Your task to perform on an android device: open a new tab in the chrome app Image 0: 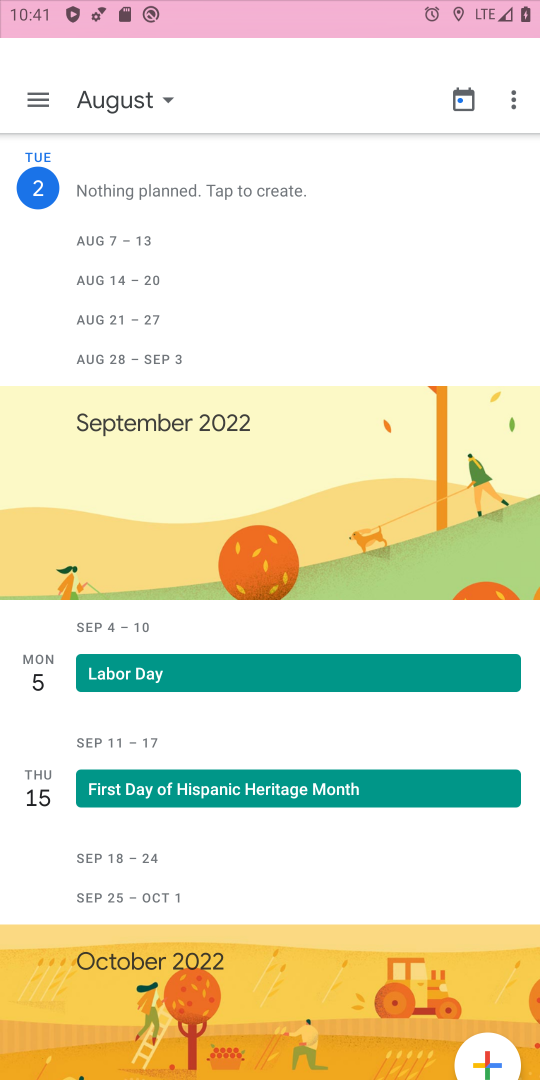
Step 0: press home button
Your task to perform on an android device: open a new tab in the chrome app Image 1: 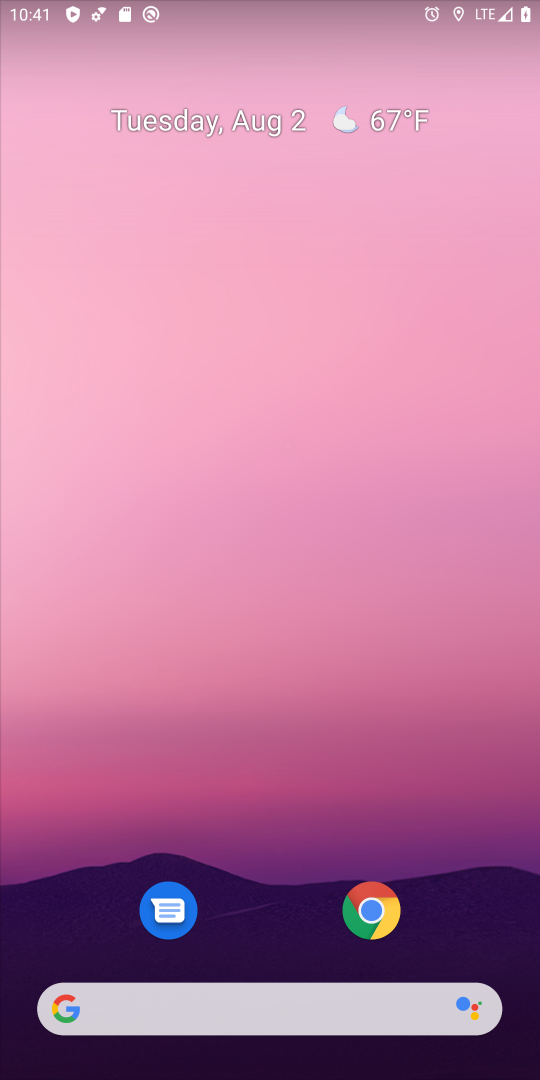
Step 1: click (377, 918)
Your task to perform on an android device: open a new tab in the chrome app Image 2: 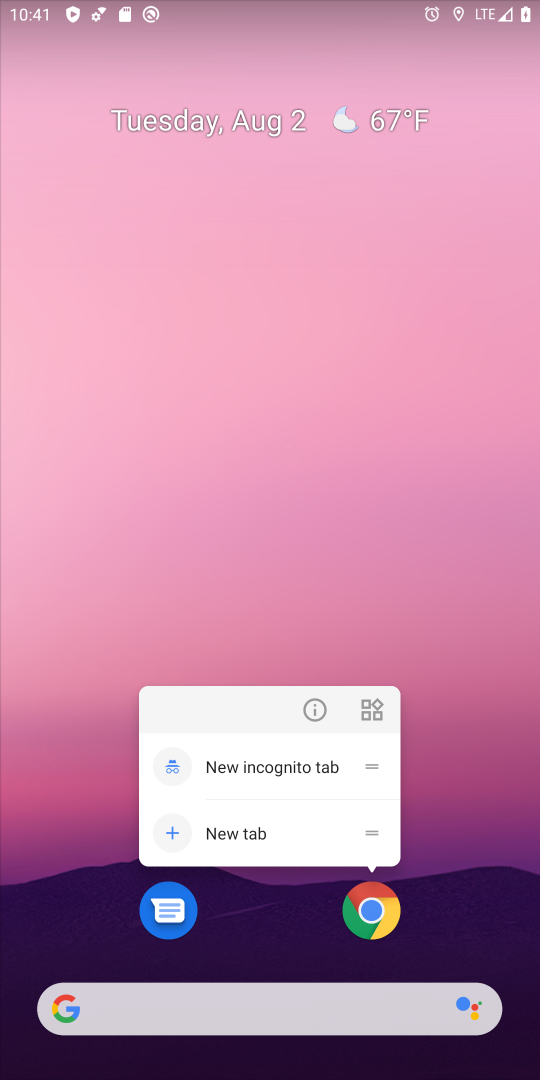
Step 2: click (377, 918)
Your task to perform on an android device: open a new tab in the chrome app Image 3: 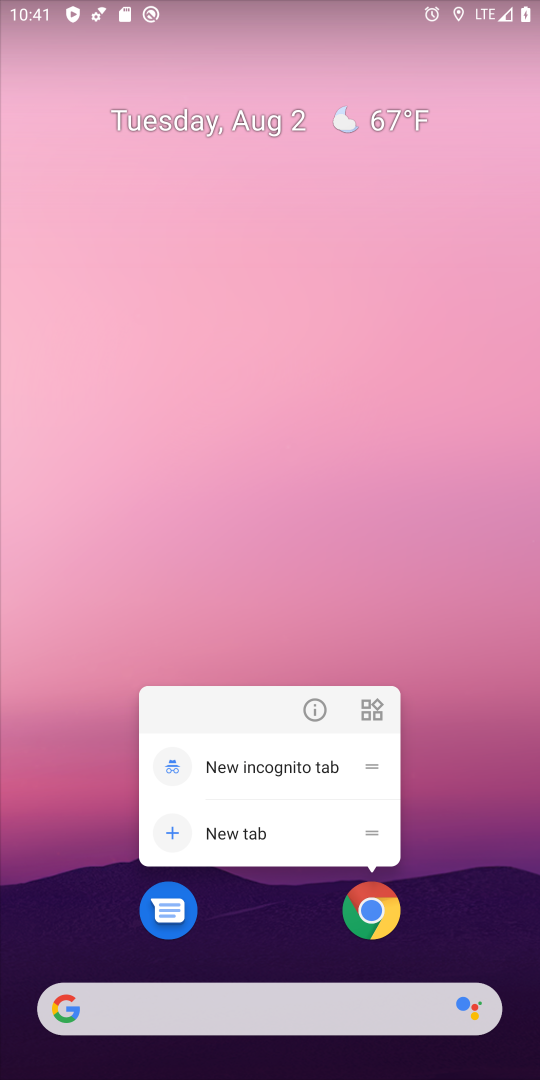
Step 3: click (377, 936)
Your task to perform on an android device: open a new tab in the chrome app Image 4: 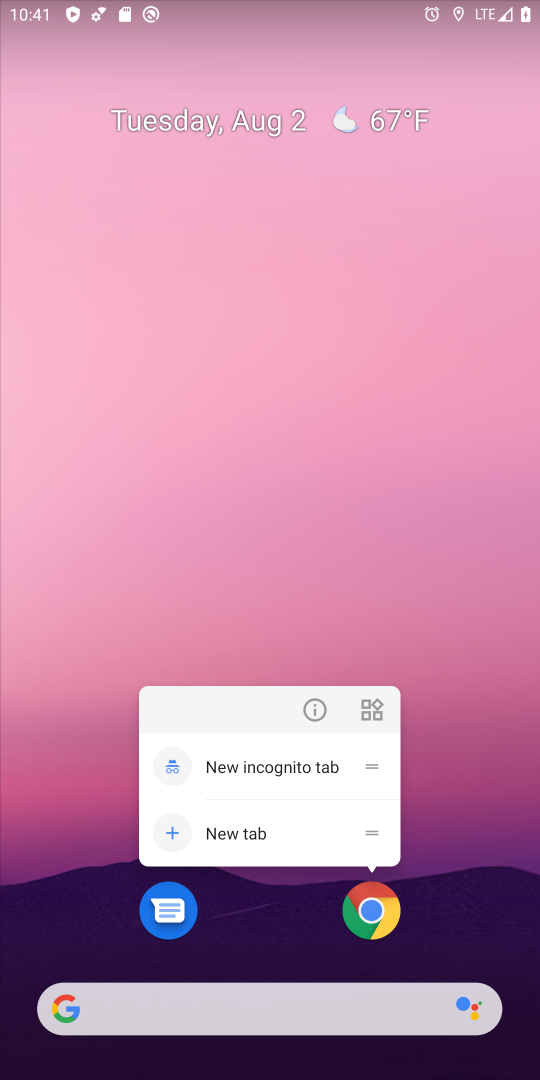
Step 4: click (377, 936)
Your task to perform on an android device: open a new tab in the chrome app Image 5: 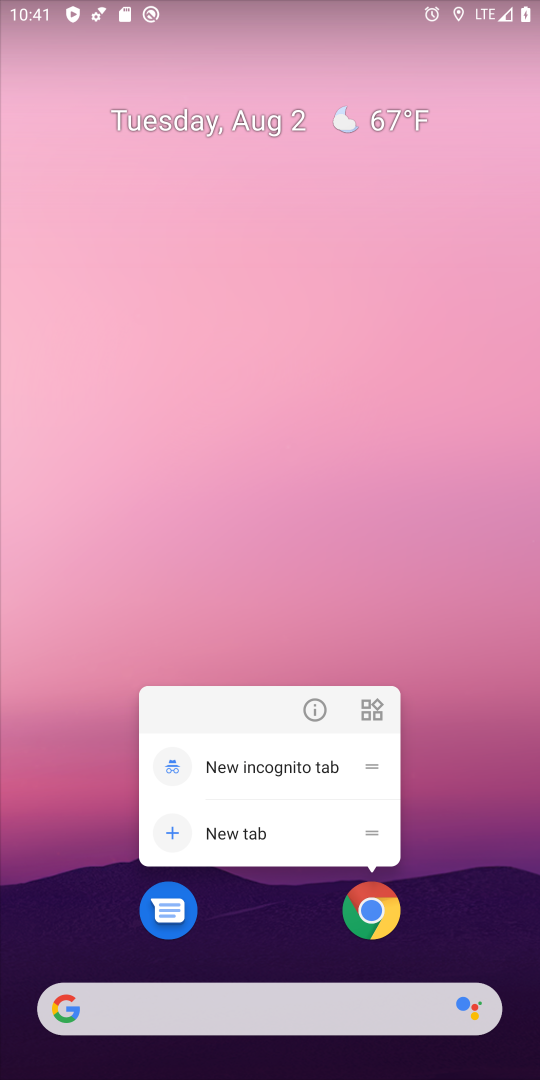
Step 5: click (369, 918)
Your task to perform on an android device: open a new tab in the chrome app Image 6: 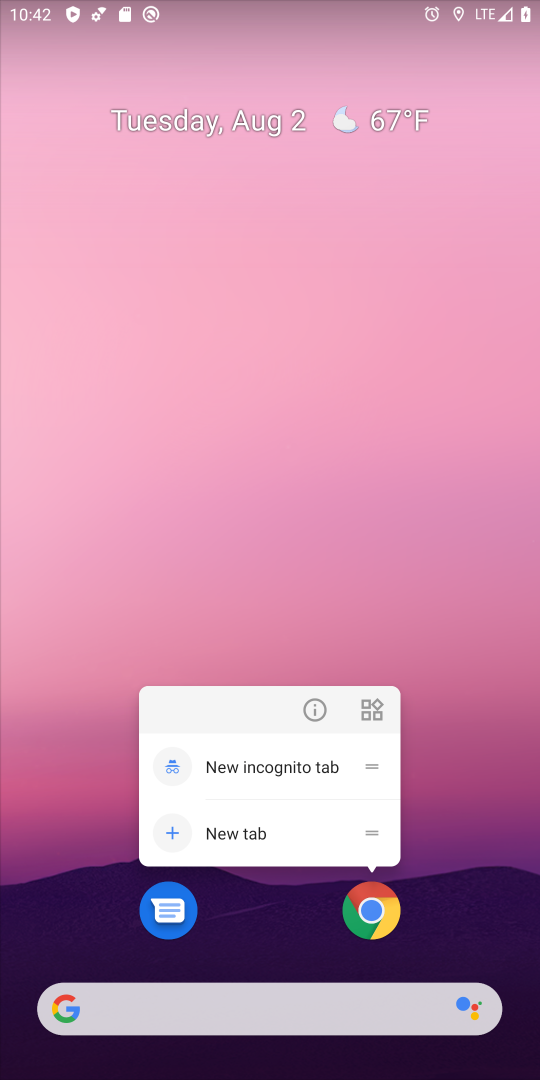
Step 6: drag from (288, 965) to (313, 362)
Your task to perform on an android device: open a new tab in the chrome app Image 7: 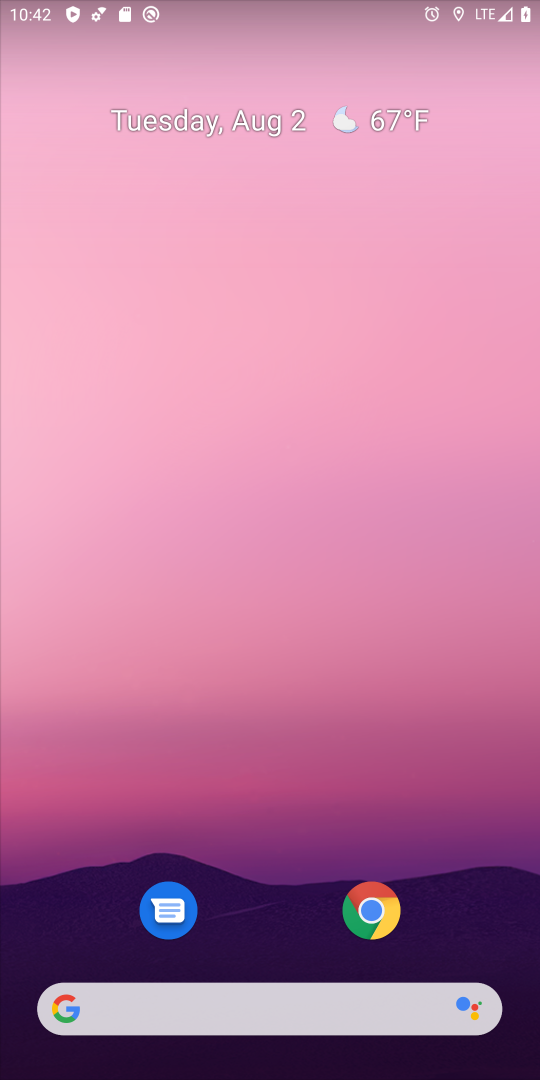
Step 7: drag from (295, 458) to (295, 399)
Your task to perform on an android device: open a new tab in the chrome app Image 8: 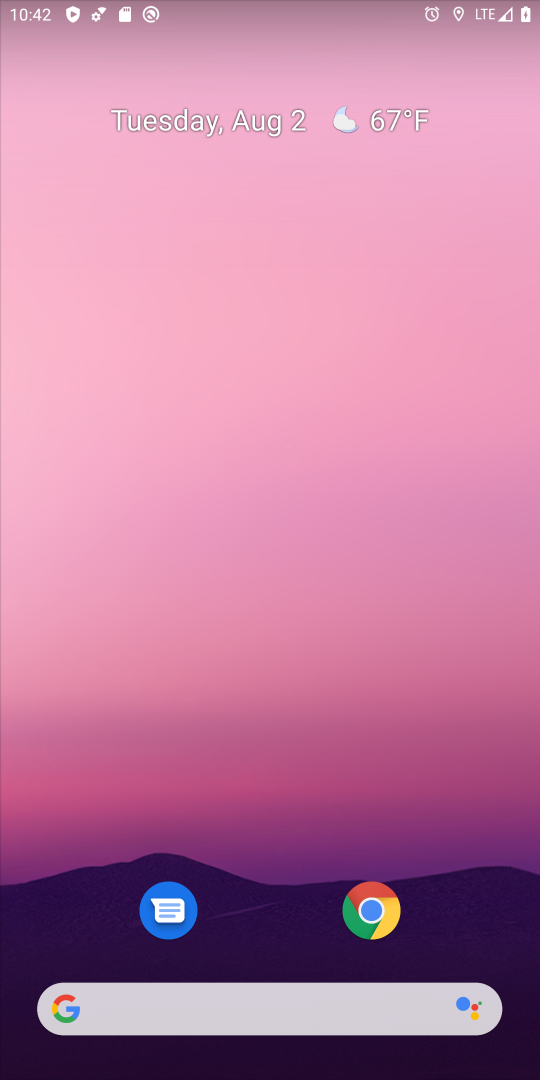
Step 8: drag from (217, 896) to (269, 473)
Your task to perform on an android device: open a new tab in the chrome app Image 9: 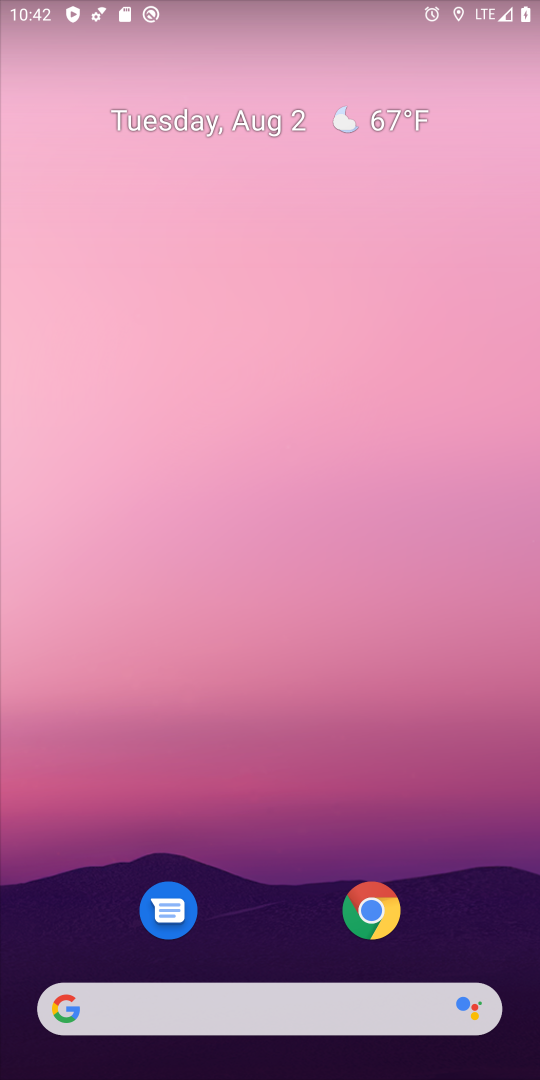
Step 9: drag from (237, 980) to (297, 363)
Your task to perform on an android device: open a new tab in the chrome app Image 10: 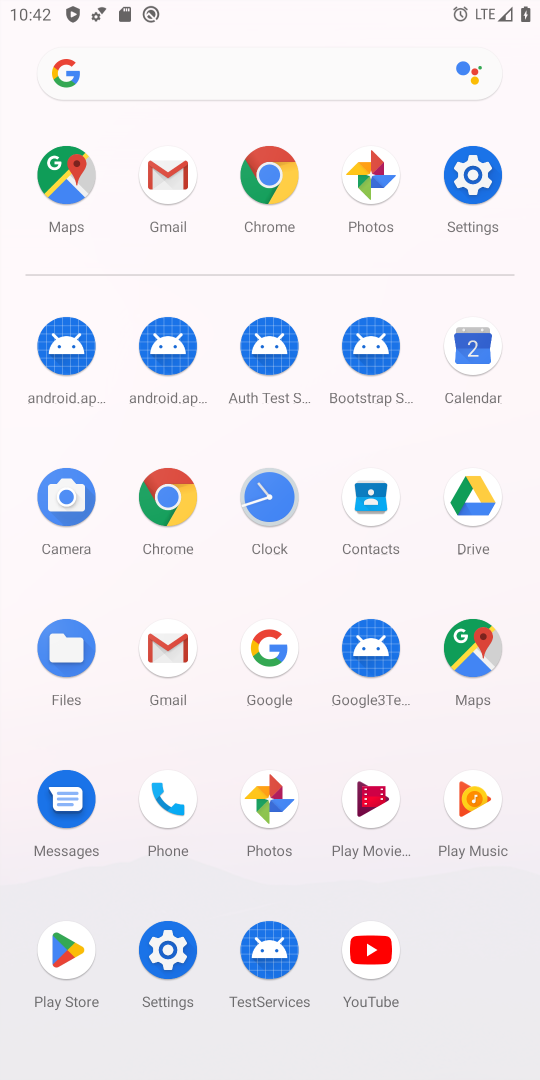
Step 10: click (284, 159)
Your task to perform on an android device: open a new tab in the chrome app Image 11: 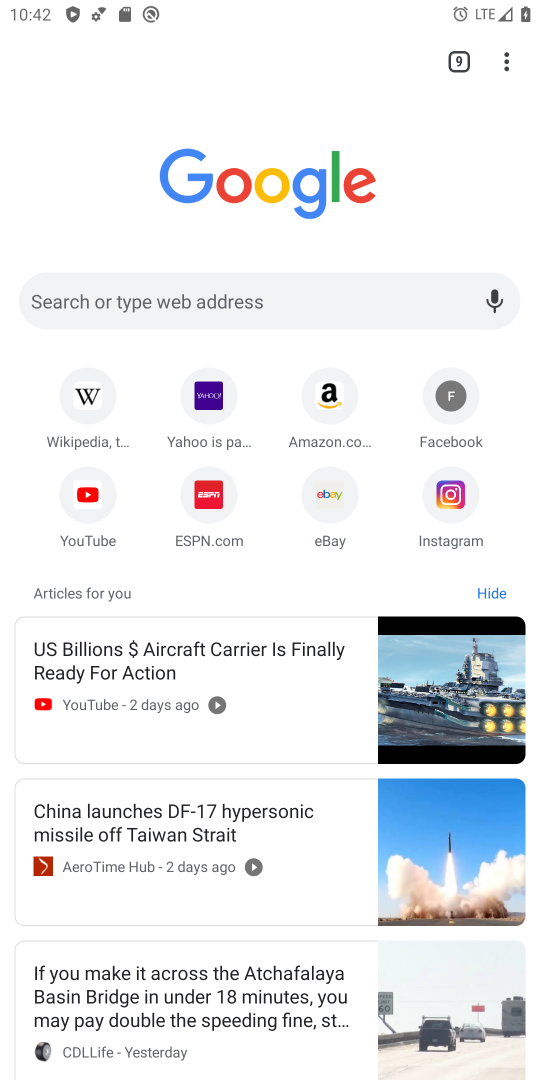
Step 11: click (517, 59)
Your task to perform on an android device: open a new tab in the chrome app Image 12: 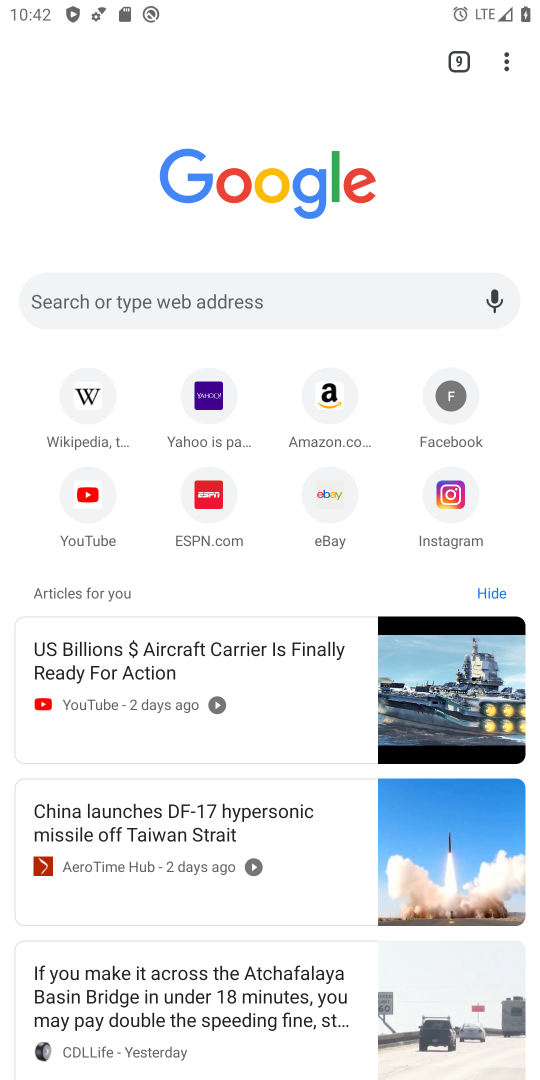
Step 12: click (508, 63)
Your task to perform on an android device: open a new tab in the chrome app Image 13: 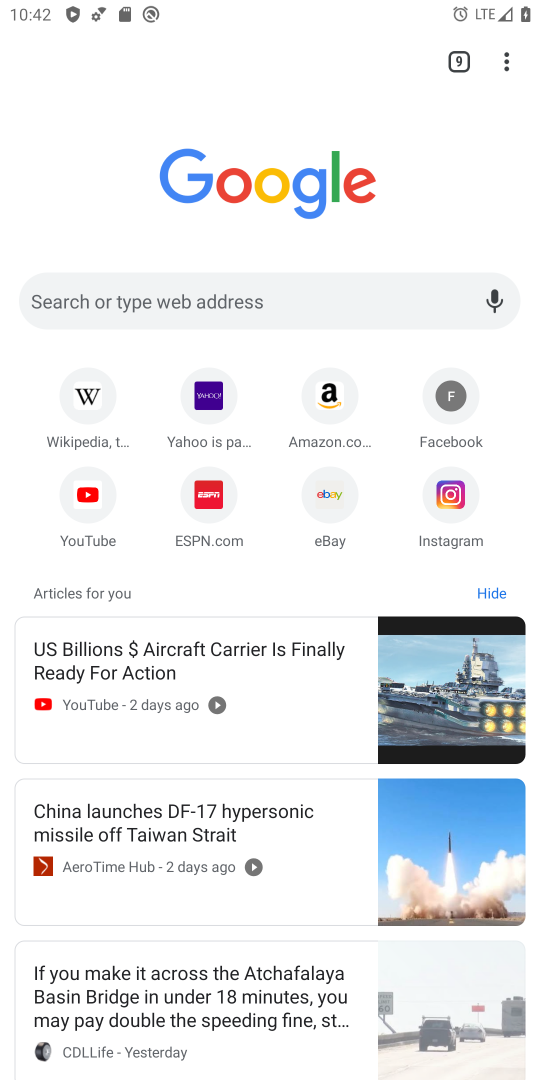
Step 13: click (508, 63)
Your task to perform on an android device: open a new tab in the chrome app Image 14: 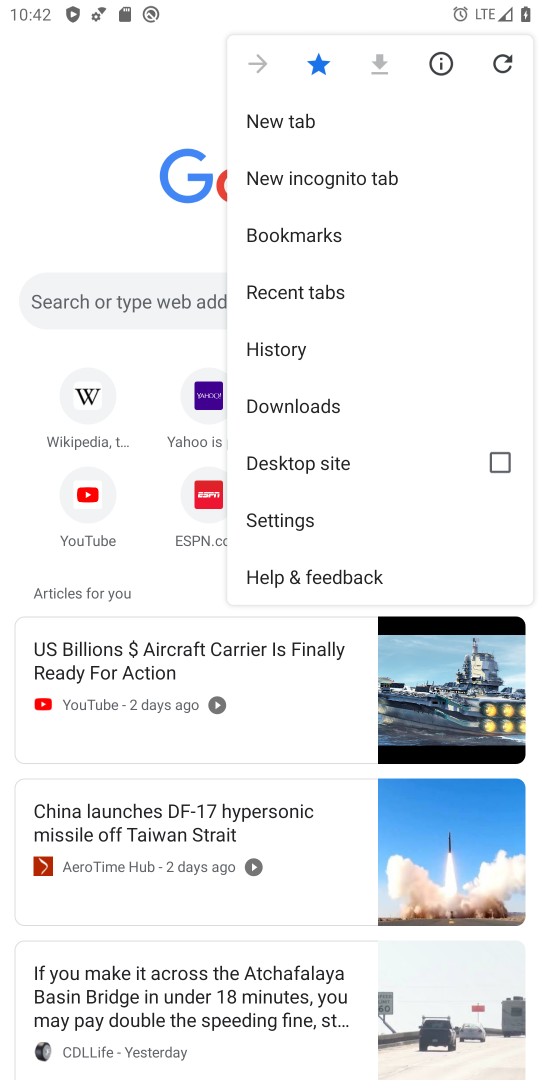
Step 14: click (269, 121)
Your task to perform on an android device: open a new tab in the chrome app Image 15: 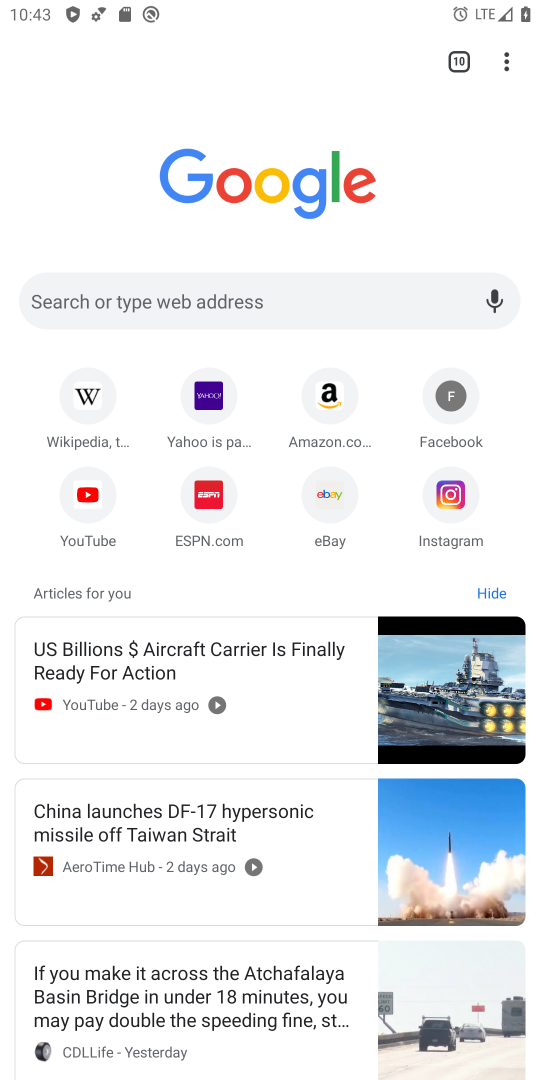
Step 15: task complete